Your task to perform on an android device: Go to Google maps Image 0: 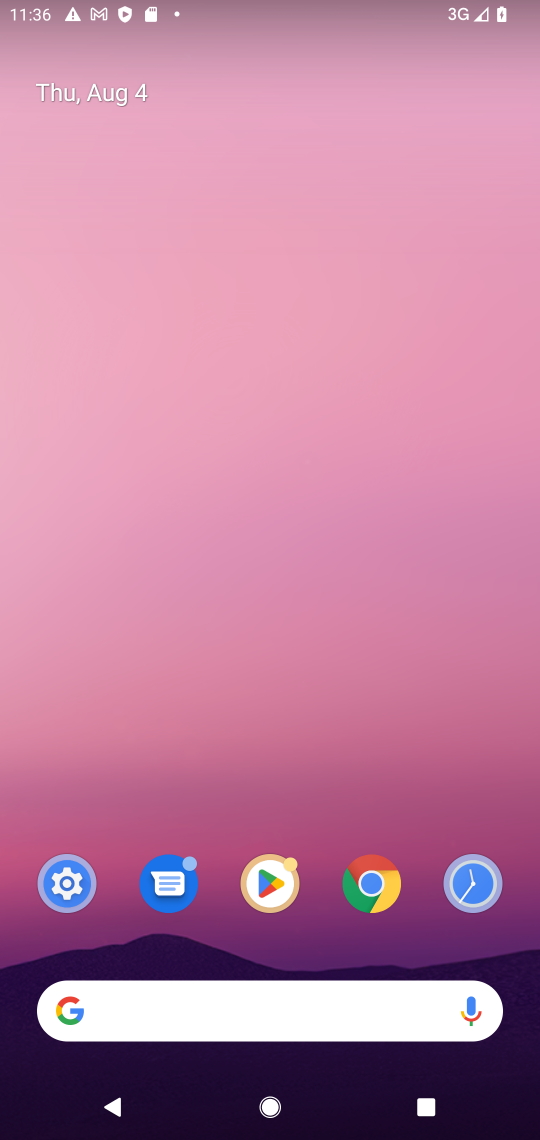
Step 0: click (400, 322)
Your task to perform on an android device: Go to Google maps Image 1: 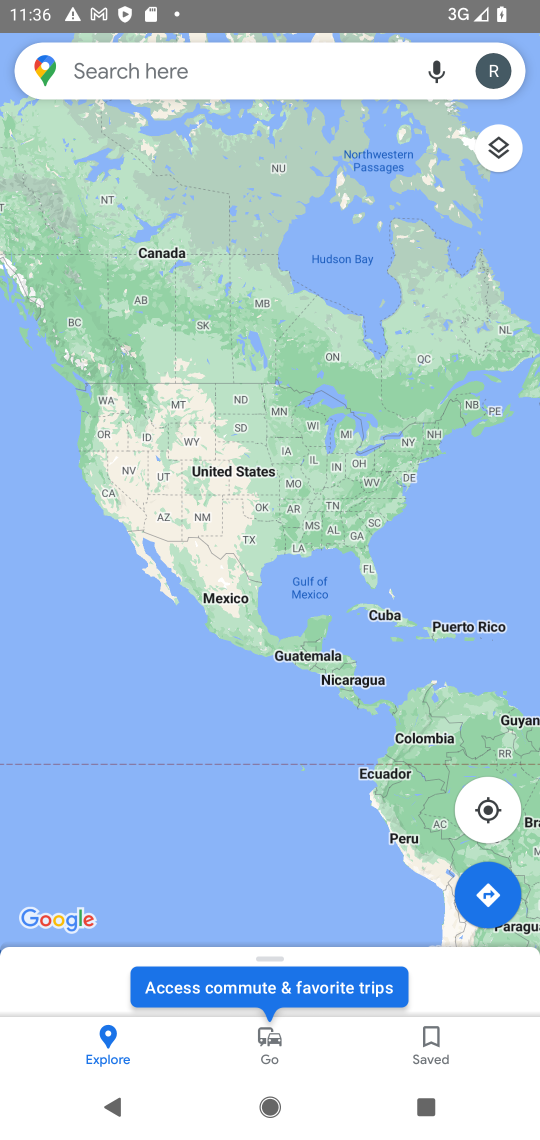
Step 1: task complete